Your task to perform on an android device: check the backup settings in the google photos Image 0: 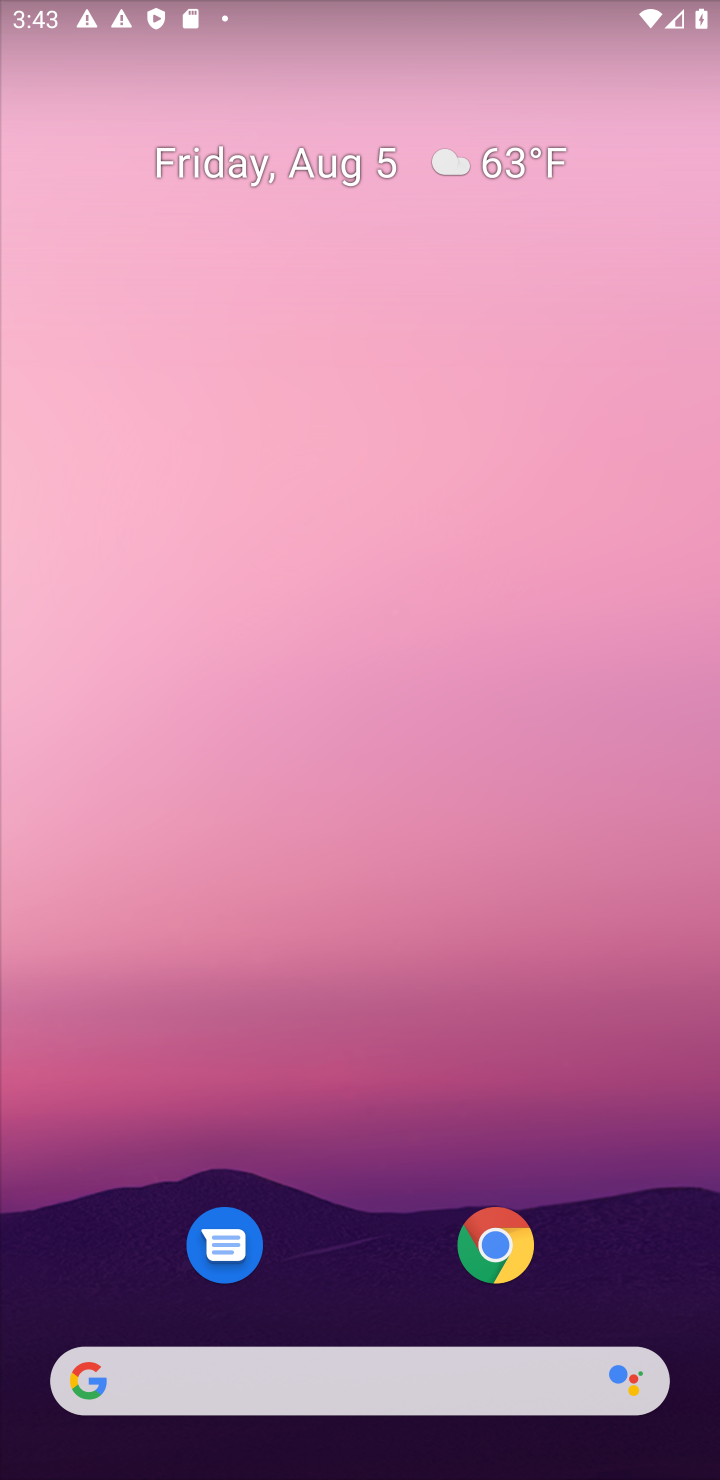
Step 0: drag from (47, 1402) to (235, 764)
Your task to perform on an android device: check the backup settings in the google photos Image 1: 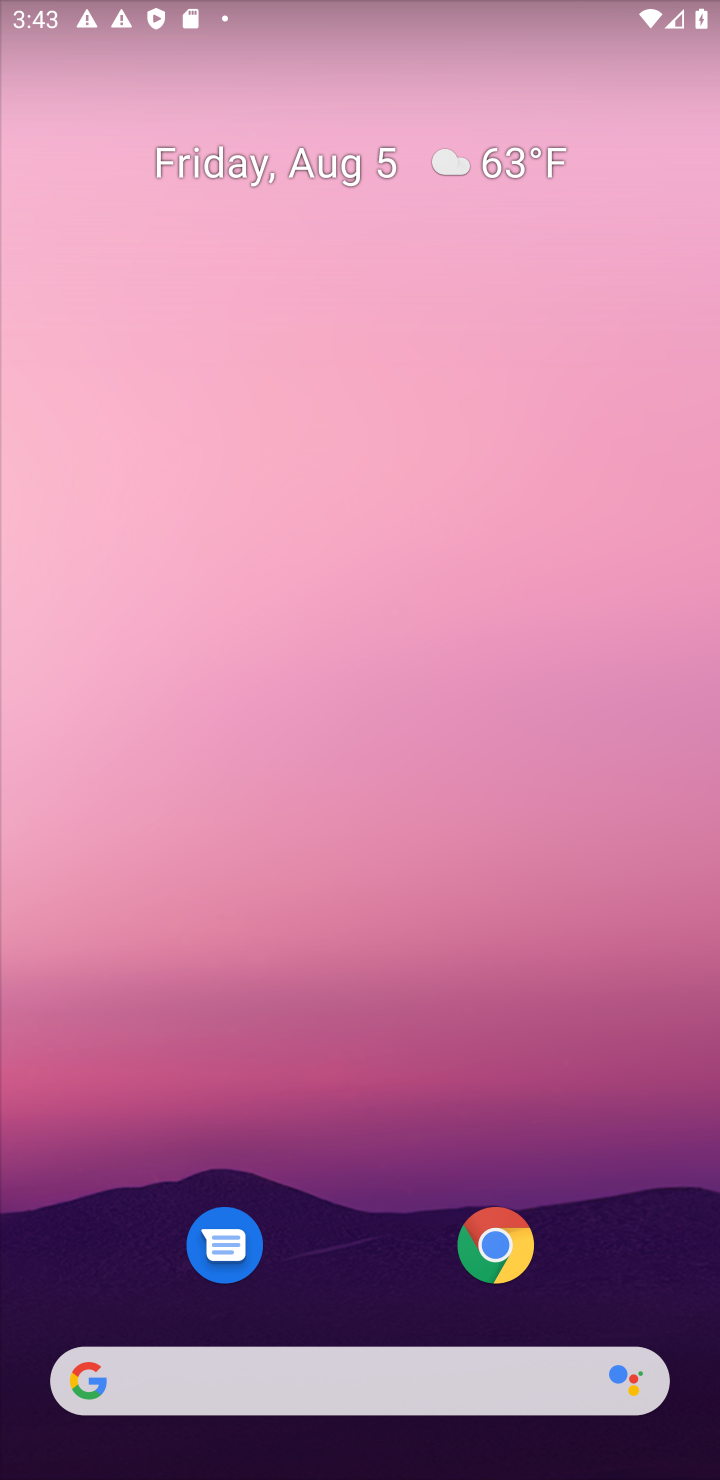
Step 1: drag from (194, 953) to (369, 403)
Your task to perform on an android device: check the backup settings in the google photos Image 2: 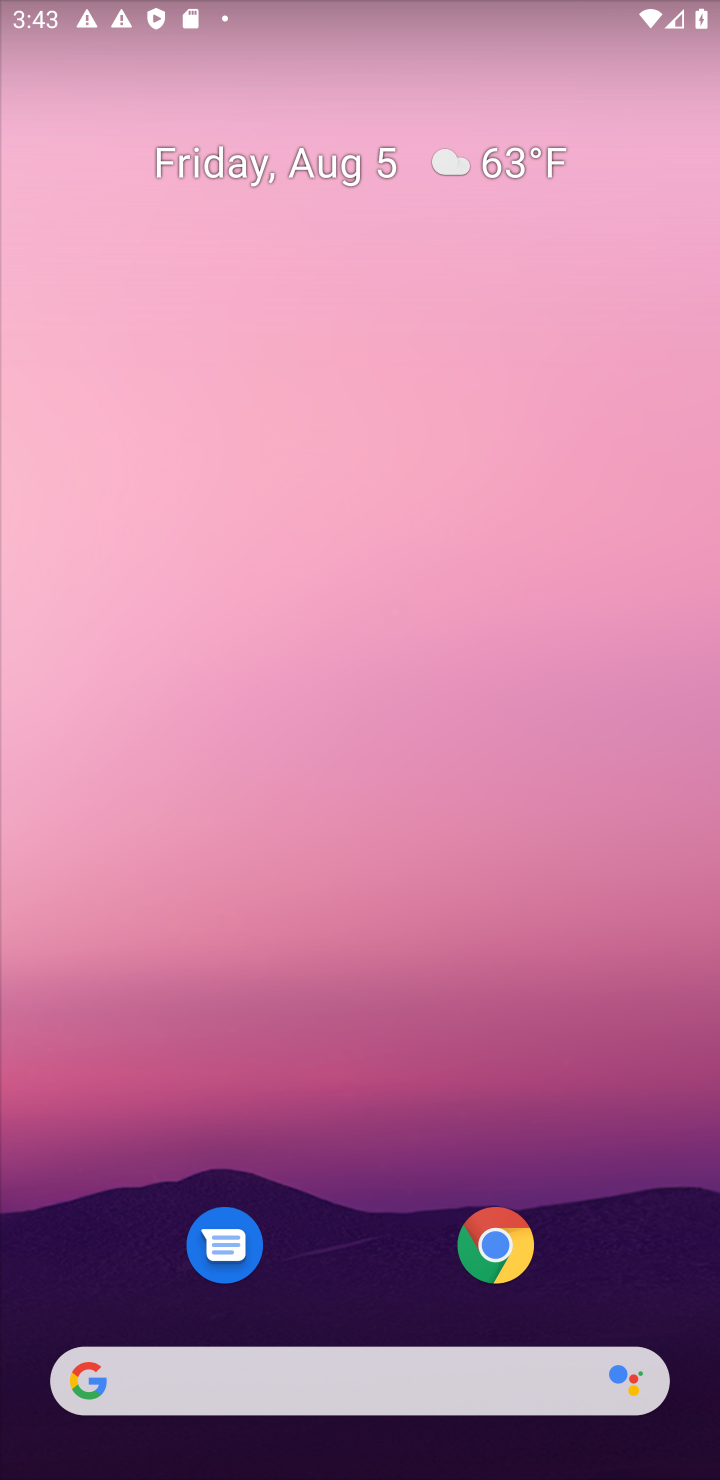
Step 2: drag from (62, 1420) to (170, 629)
Your task to perform on an android device: check the backup settings in the google photos Image 3: 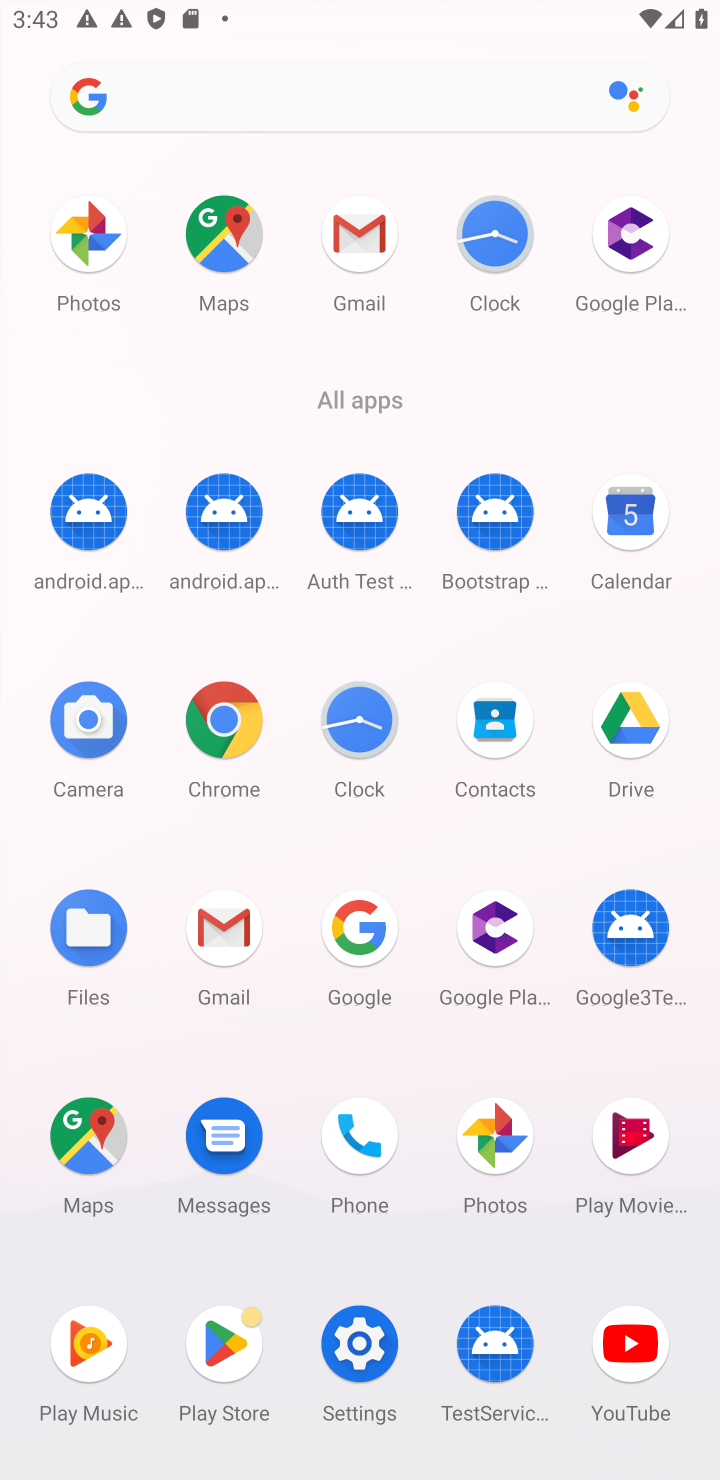
Step 3: click (479, 1096)
Your task to perform on an android device: check the backup settings in the google photos Image 4: 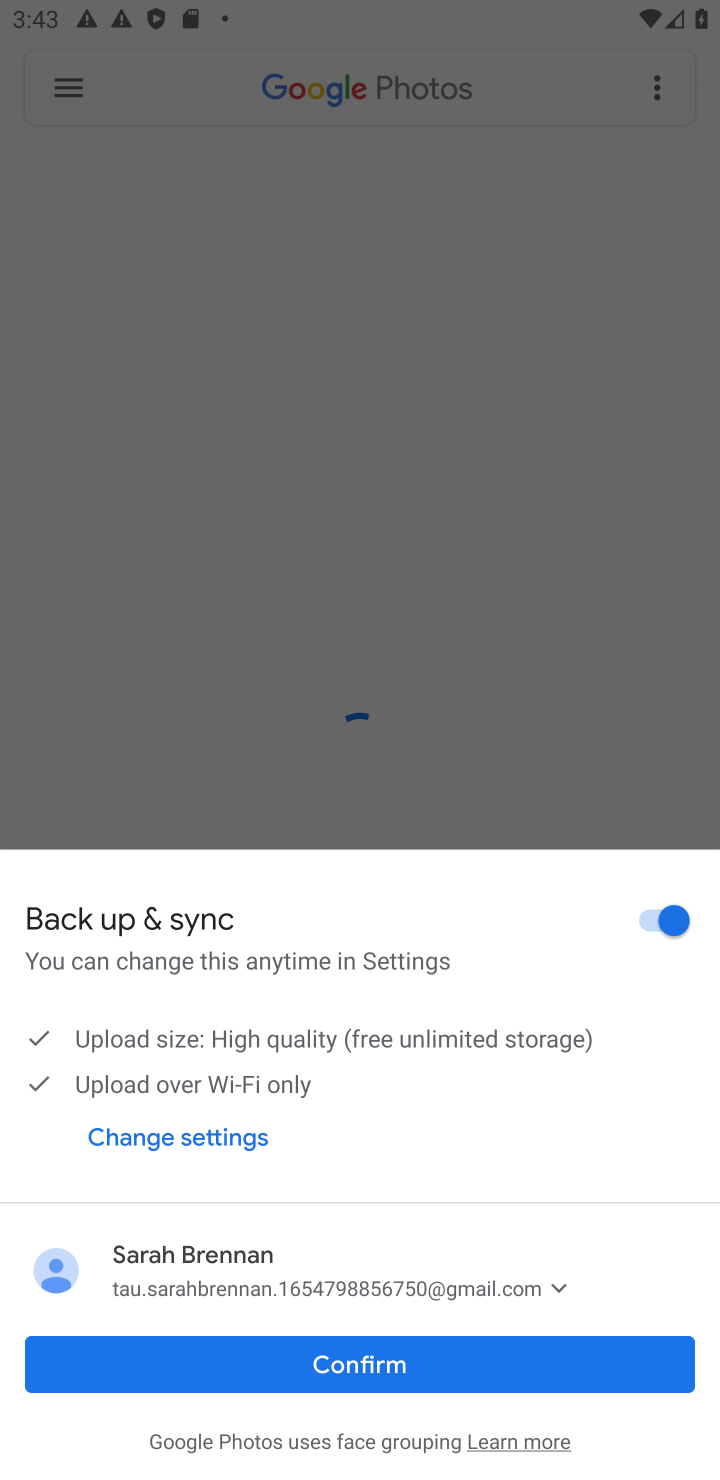
Step 4: click (364, 1355)
Your task to perform on an android device: check the backup settings in the google photos Image 5: 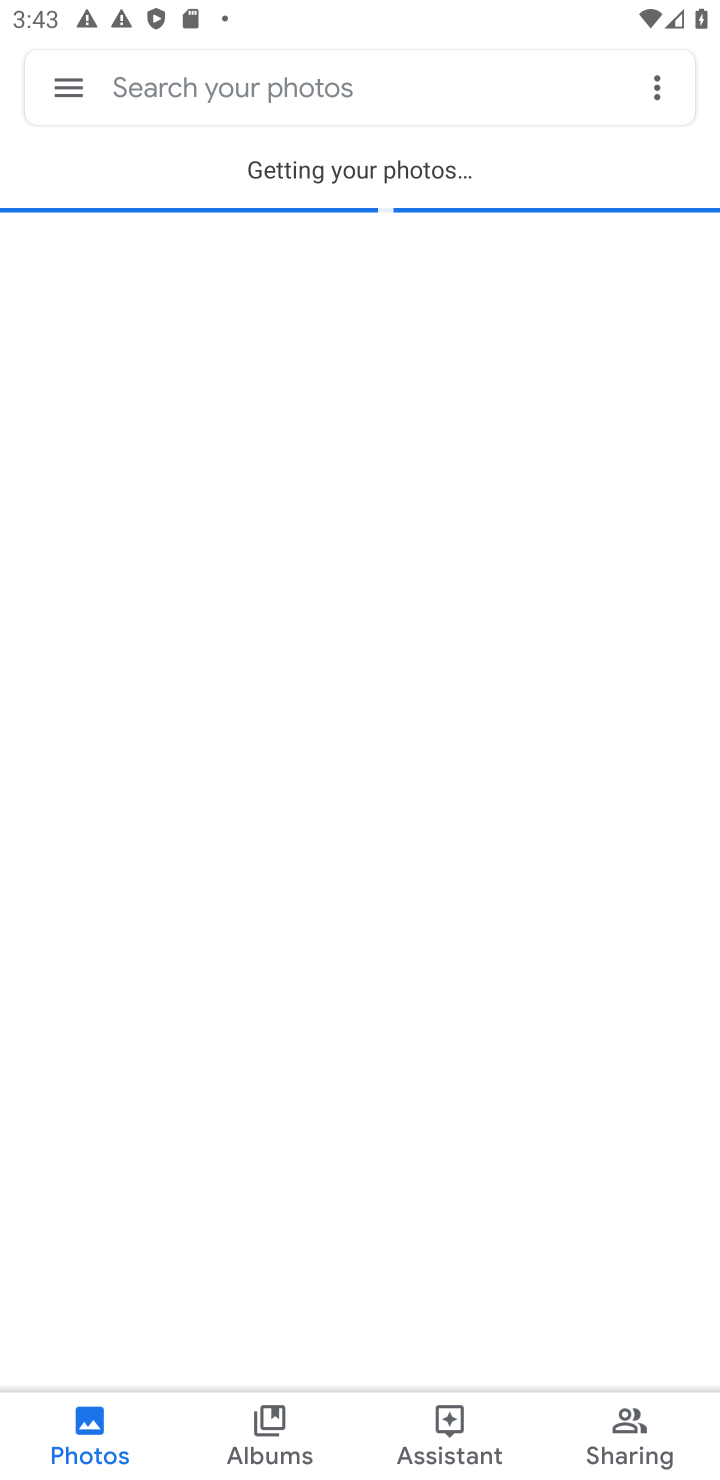
Step 5: click (71, 72)
Your task to perform on an android device: check the backup settings in the google photos Image 6: 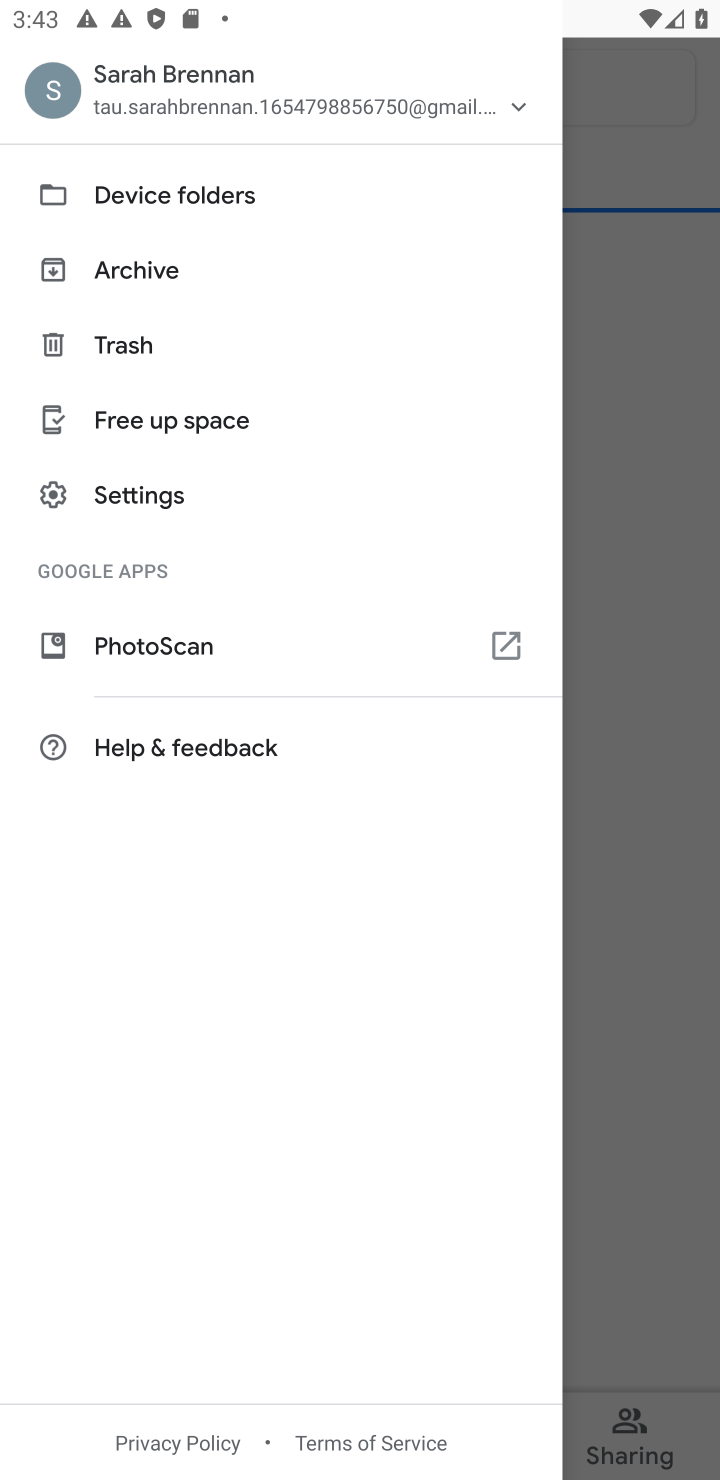
Step 6: click (128, 501)
Your task to perform on an android device: check the backup settings in the google photos Image 7: 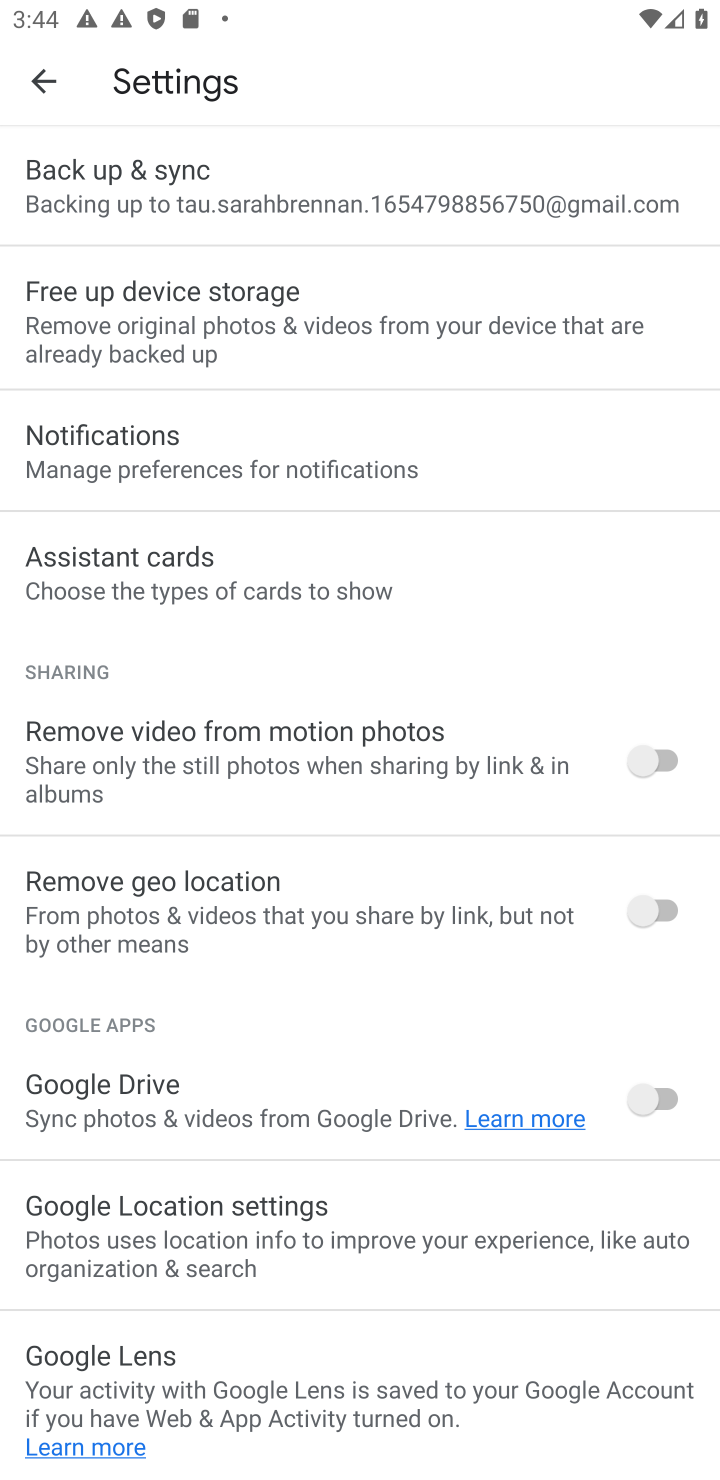
Step 7: click (156, 168)
Your task to perform on an android device: check the backup settings in the google photos Image 8: 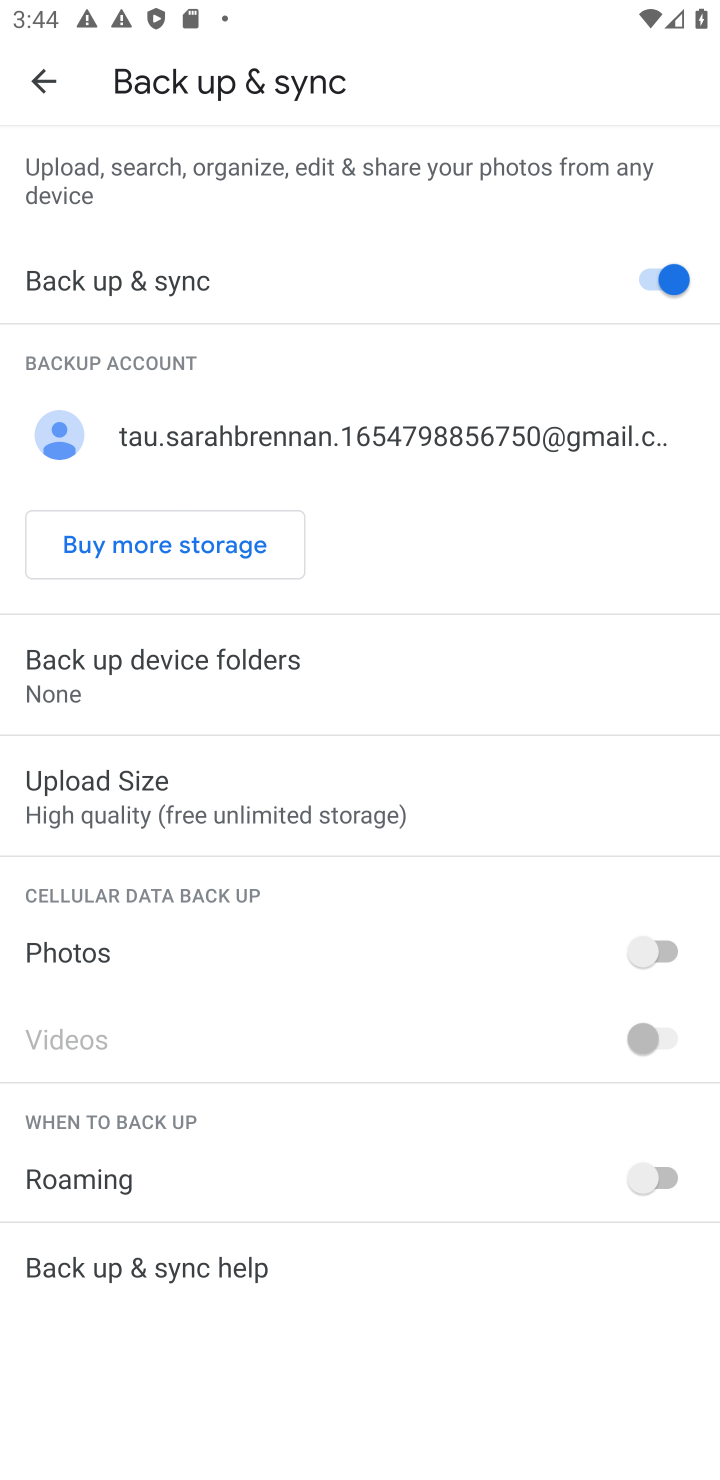
Step 8: task complete